Your task to perform on an android device: Go to internet settings Image 0: 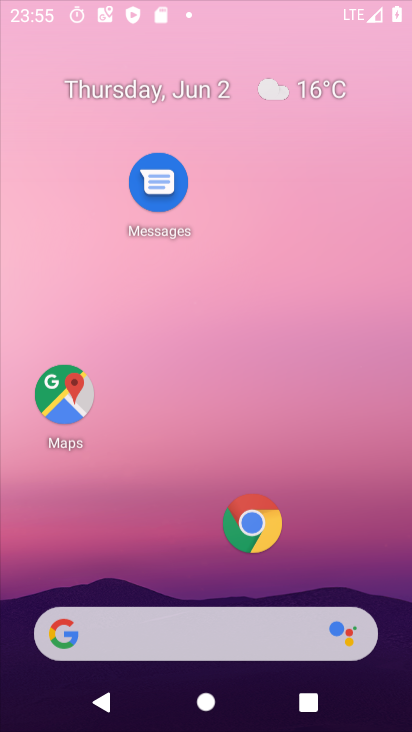
Step 0: press home button
Your task to perform on an android device: Go to internet settings Image 1: 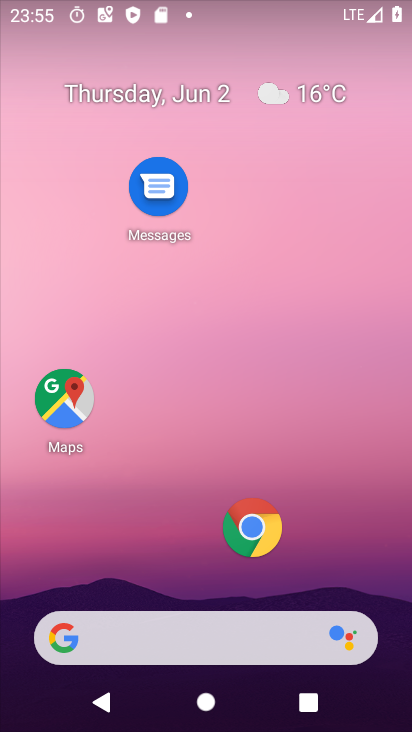
Step 1: drag from (209, 572) to (250, 128)
Your task to perform on an android device: Go to internet settings Image 2: 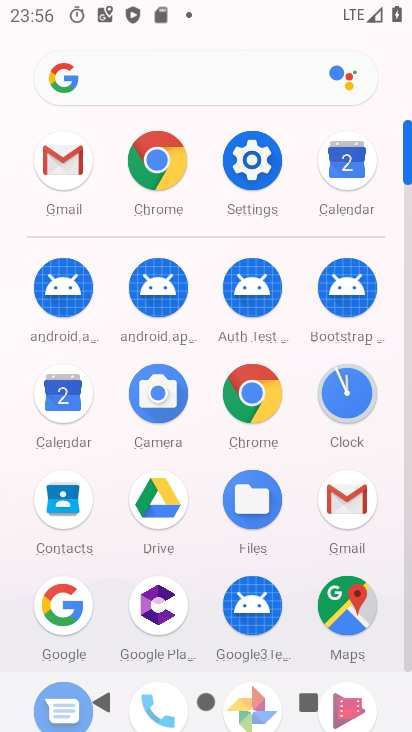
Step 2: click (255, 152)
Your task to perform on an android device: Go to internet settings Image 3: 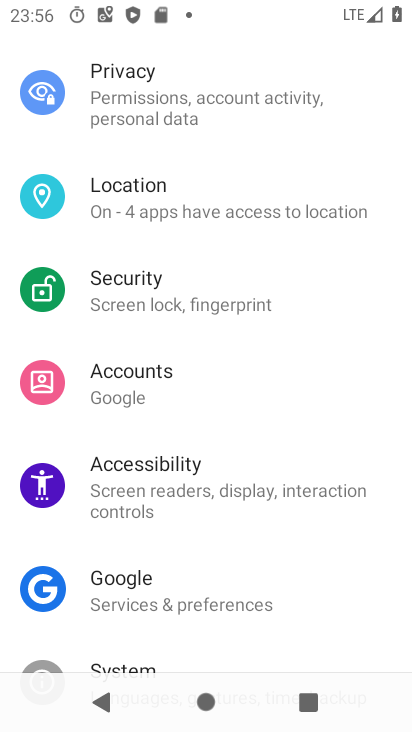
Step 3: drag from (188, 70) to (190, 642)
Your task to perform on an android device: Go to internet settings Image 4: 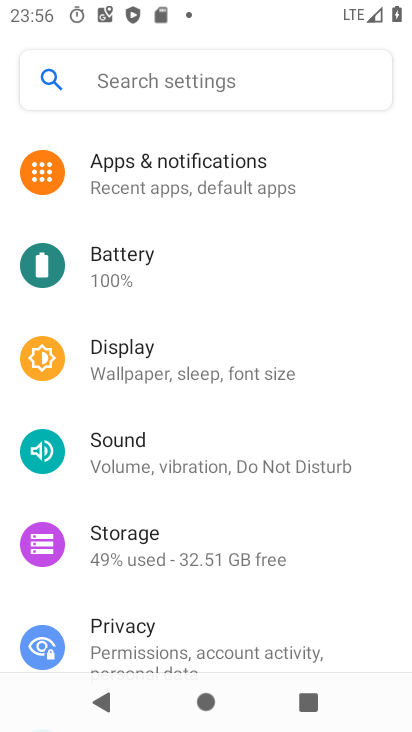
Step 4: drag from (181, 163) to (217, 640)
Your task to perform on an android device: Go to internet settings Image 5: 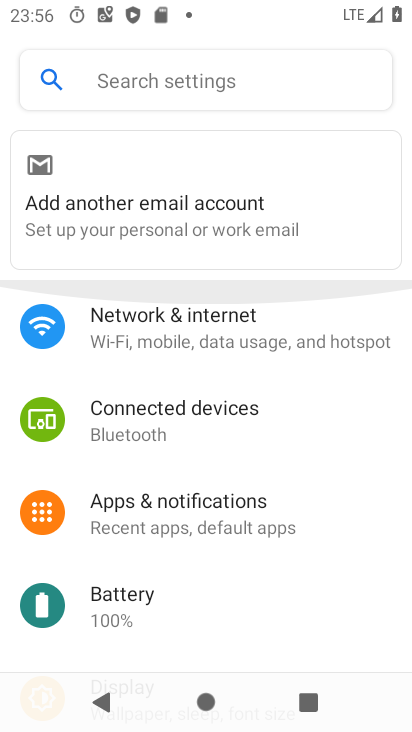
Step 5: click (195, 330)
Your task to perform on an android device: Go to internet settings Image 6: 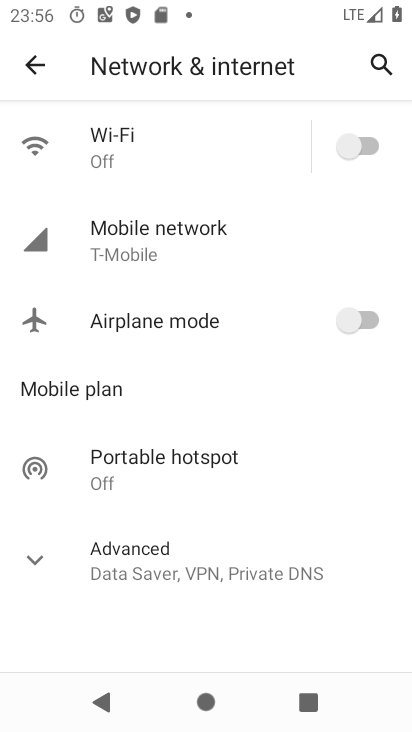
Step 6: click (33, 557)
Your task to perform on an android device: Go to internet settings Image 7: 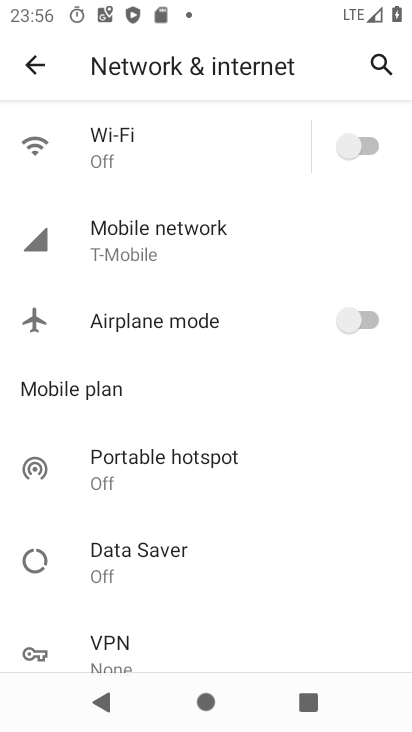
Step 7: click (177, 649)
Your task to perform on an android device: Go to internet settings Image 8: 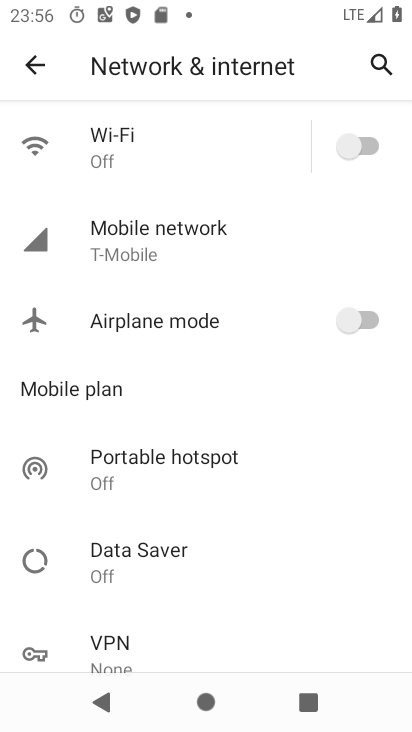
Step 8: task complete